Your task to perform on an android device: turn off location Image 0: 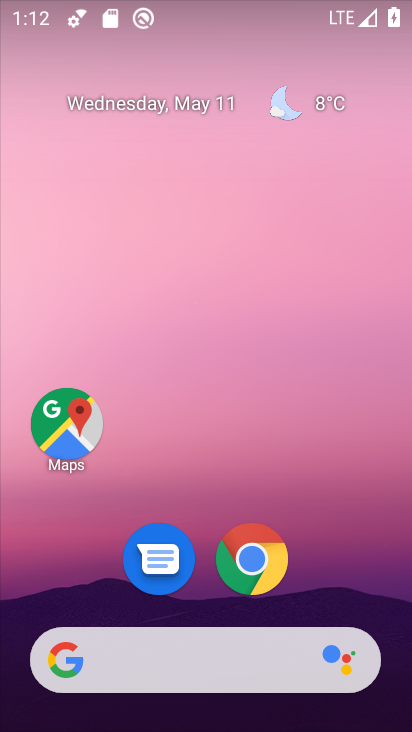
Step 0: drag from (181, 723) to (184, 161)
Your task to perform on an android device: turn off location Image 1: 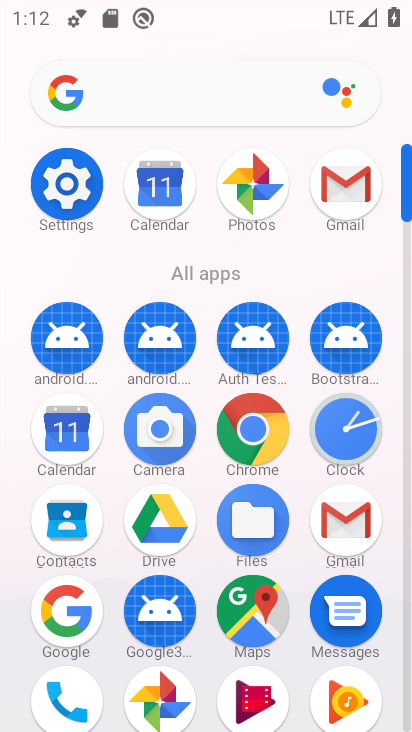
Step 1: click (70, 181)
Your task to perform on an android device: turn off location Image 2: 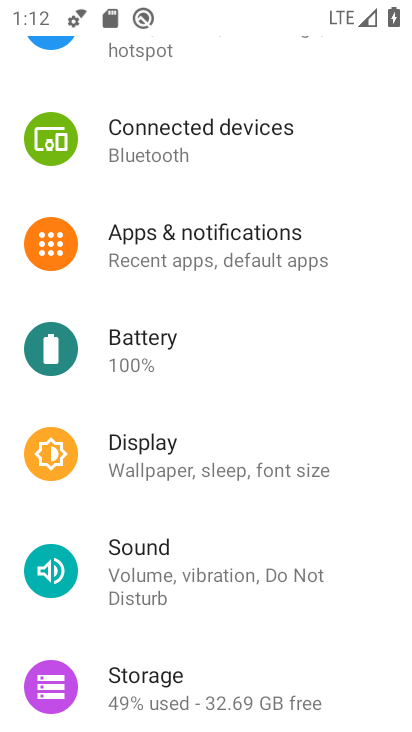
Step 2: drag from (175, 646) to (174, 232)
Your task to perform on an android device: turn off location Image 3: 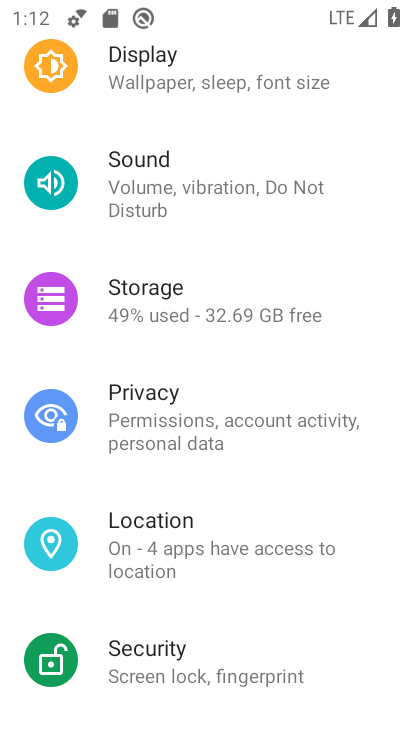
Step 3: click (152, 541)
Your task to perform on an android device: turn off location Image 4: 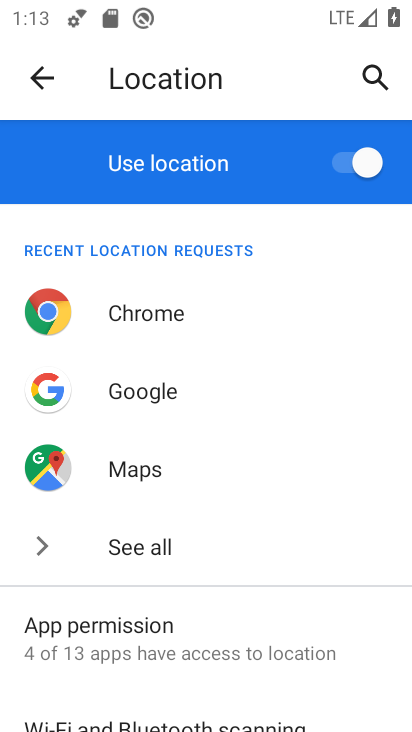
Step 4: click (349, 160)
Your task to perform on an android device: turn off location Image 5: 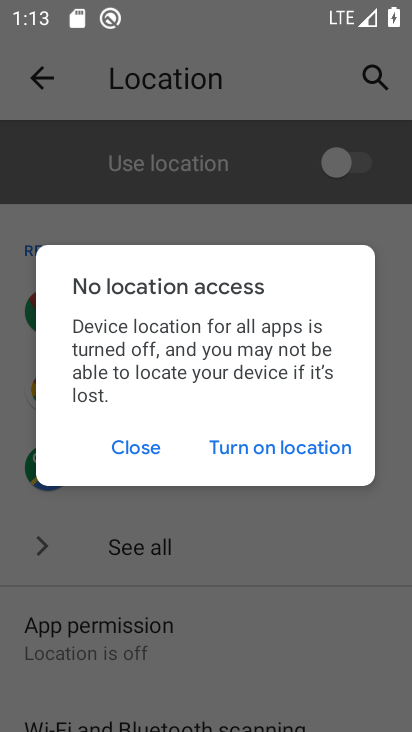
Step 5: click (138, 443)
Your task to perform on an android device: turn off location Image 6: 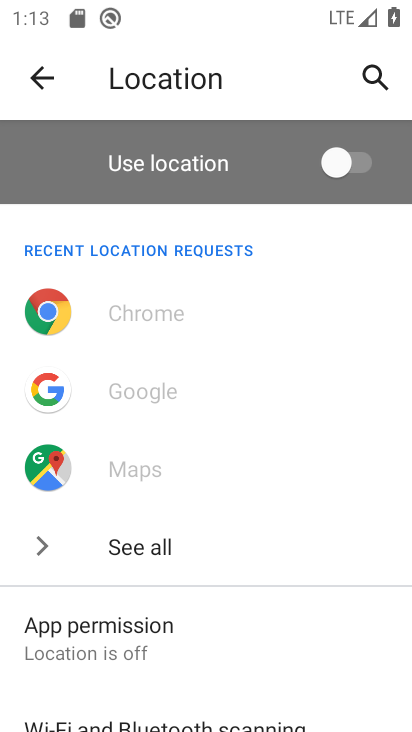
Step 6: task complete